Your task to perform on an android device: turn off sleep mode Image 0: 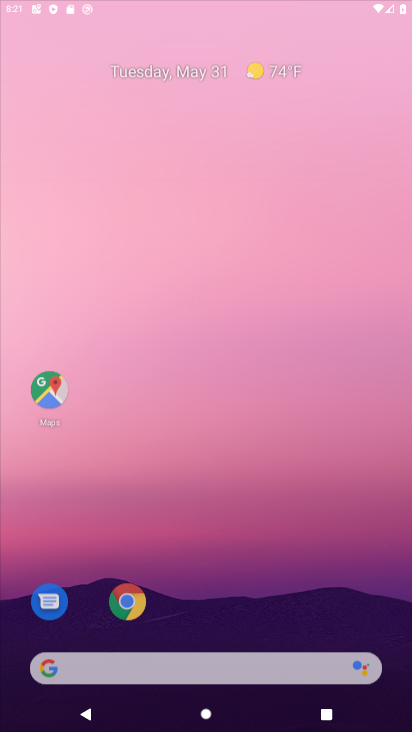
Step 0: press home button
Your task to perform on an android device: turn off sleep mode Image 1: 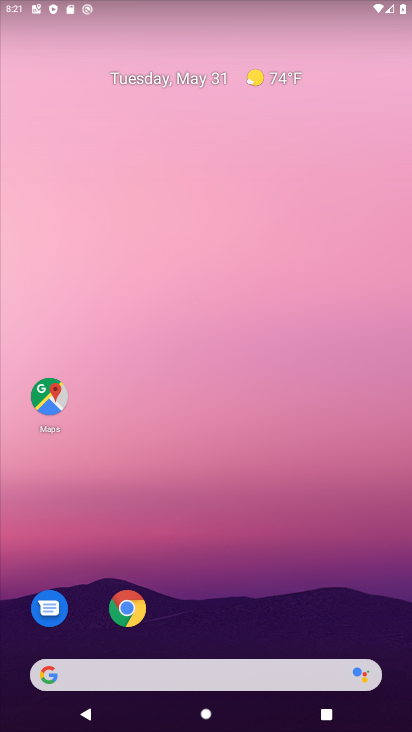
Step 1: drag from (234, 646) to (175, 44)
Your task to perform on an android device: turn off sleep mode Image 2: 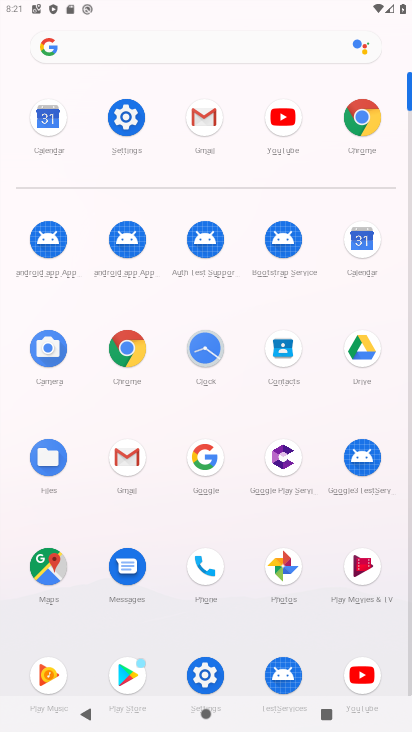
Step 2: click (123, 110)
Your task to perform on an android device: turn off sleep mode Image 3: 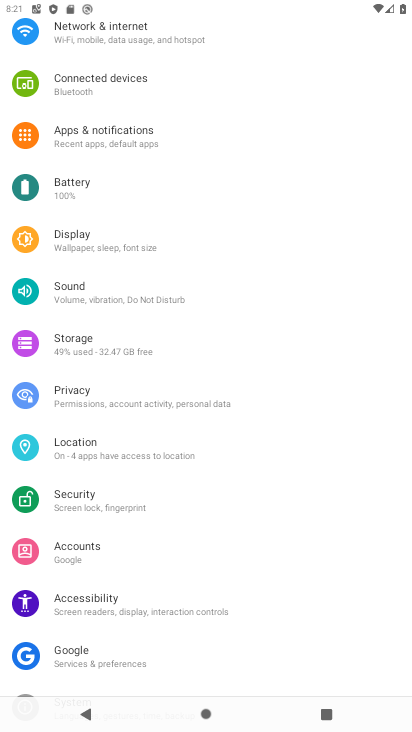
Step 3: click (74, 237)
Your task to perform on an android device: turn off sleep mode Image 4: 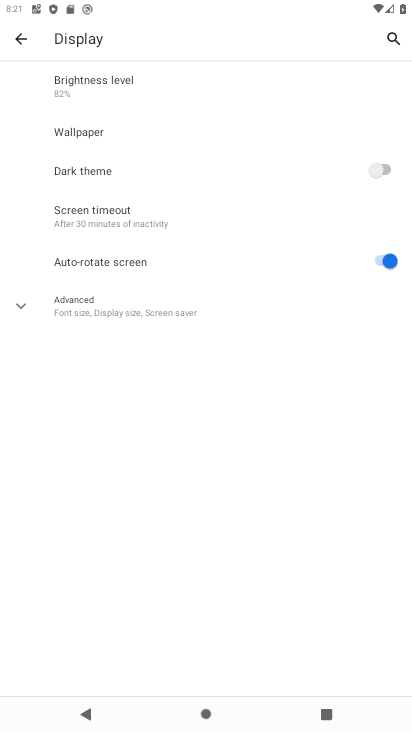
Step 4: task complete